Your task to perform on an android device: Check out the top rated books on Goodreads. Image 0: 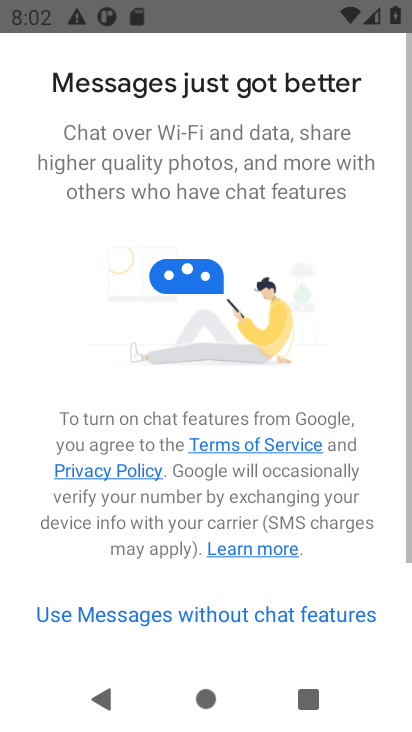
Step 0: press home button
Your task to perform on an android device: Check out the top rated books on Goodreads. Image 1: 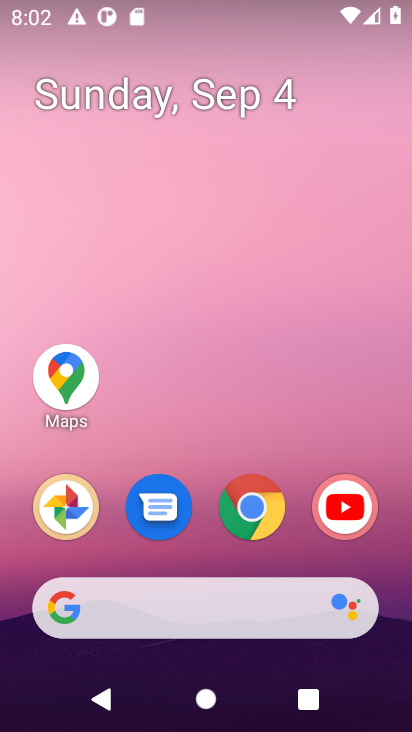
Step 1: click (261, 506)
Your task to perform on an android device: Check out the top rated books on Goodreads. Image 2: 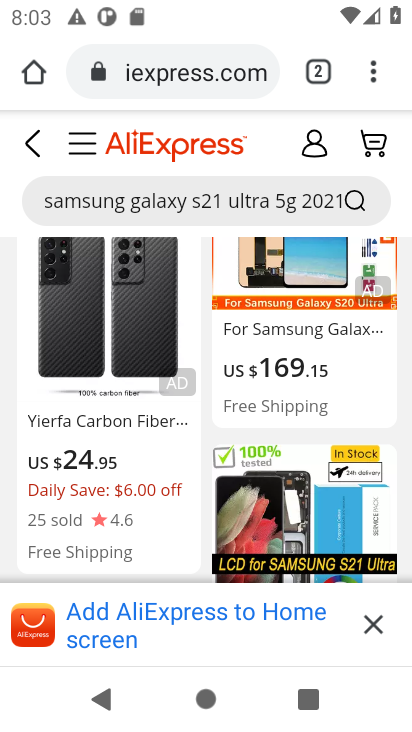
Step 2: click (180, 52)
Your task to perform on an android device: Check out the top rated books on Goodreads. Image 3: 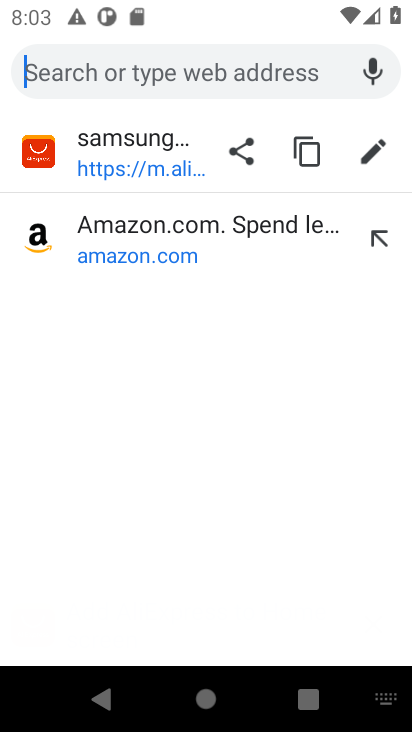
Step 3: type "Goodreads"
Your task to perform on an android device: Check out the top rated books on Goodreads. Image 4: 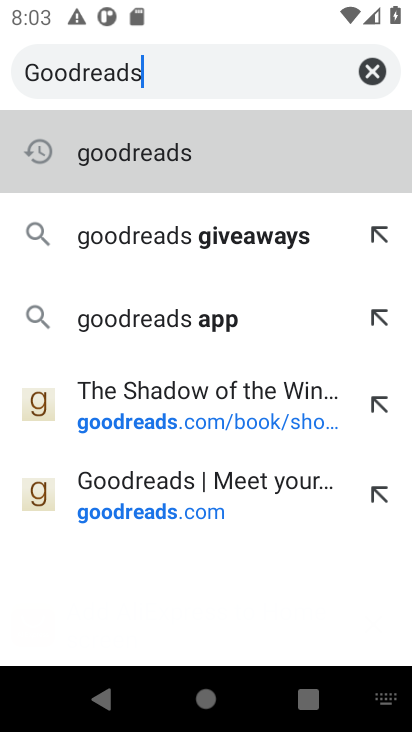
Step 4: click (133, 153)
Your task to perform on an android device: Check out the top rated books on Goodreads. Image 5: 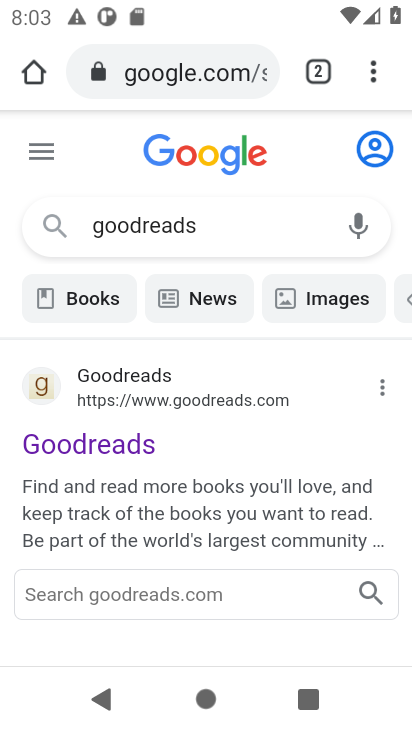
Step 5: click (94, 447)
Your task to perform on an android device: Check out the top rated books on Goodreads. Image 6: 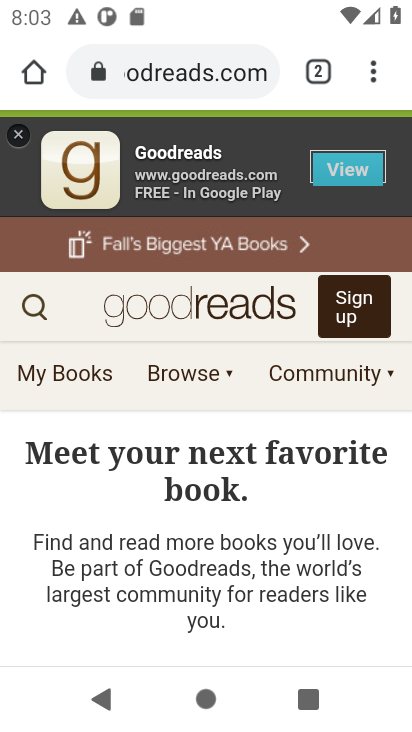
Step 6: click (29, 306)
Your task to perform on an android device: Check out the top rated books on Goodreads. Image 7: 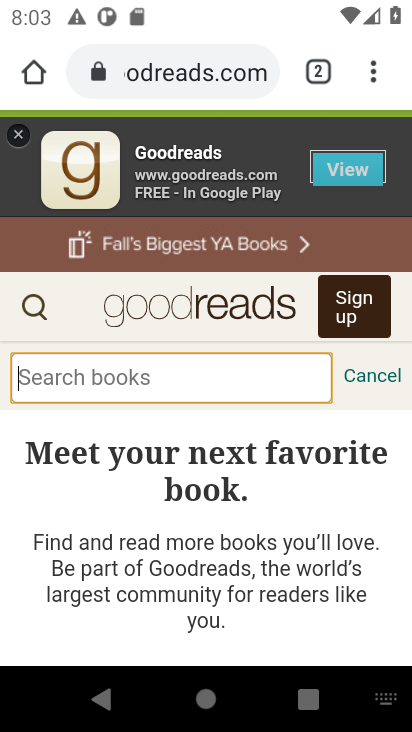
Step 7: type "books"
Your task to perform on an android device: Check out the top rated books on Goodreads. Image 8: 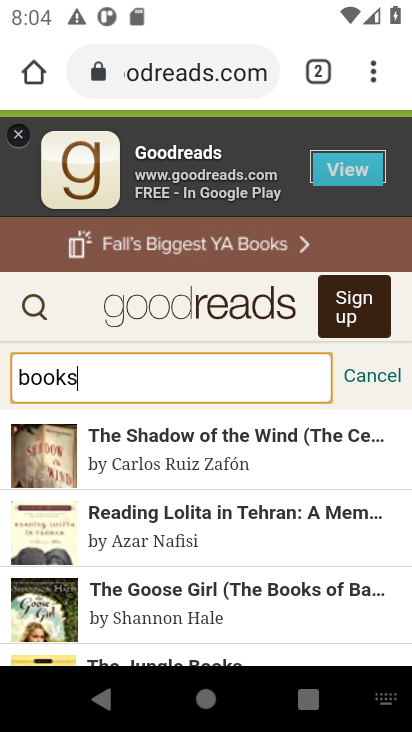
Step 8: drag from (144, 581) to (164, 290)
Your task to perform on an android device: Check out the top rated books on Goodreads. Image 9: 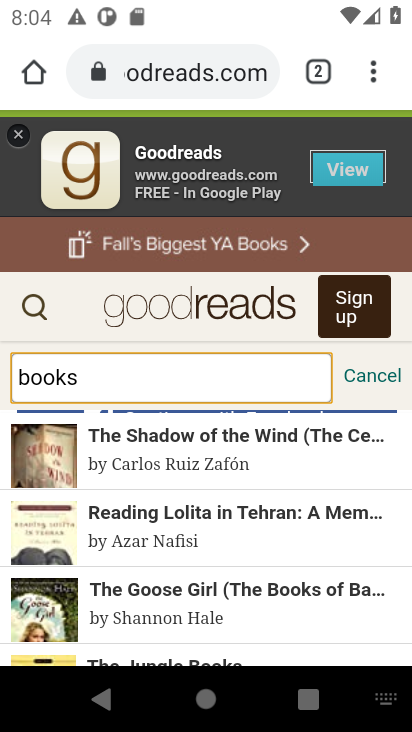
Step 9: drag from (254, 607) to (241, 184)
Your task to perform on an android device: Check out the top rated books on Goodreads. Image 10: 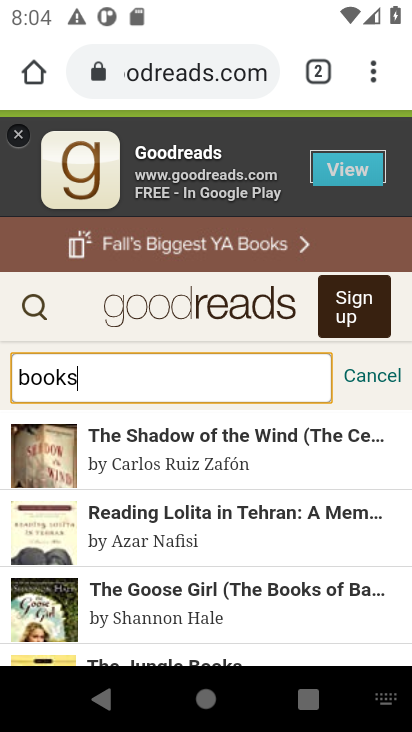
Step 10: click (153, 610)
Your task to perform on an android device: Check out the top rated books on Goodreads. Image 11: 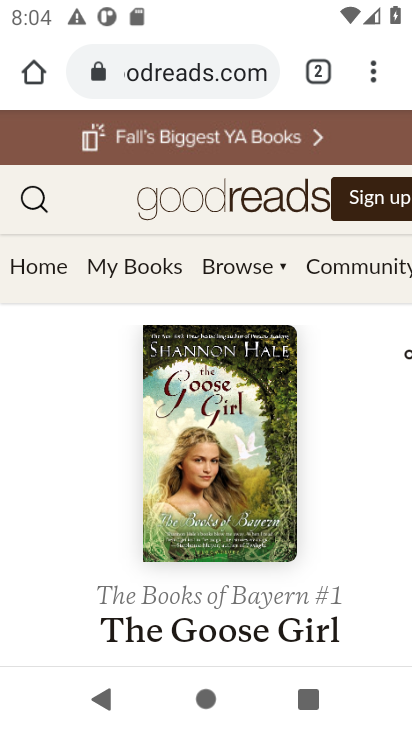
Step 11: task complete